Your task to perform on an android device: remove spam from my inbox in the gmail app Image 0: 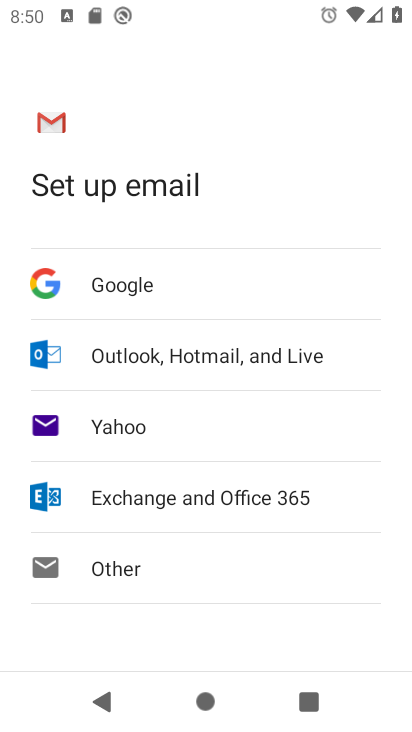
Step 0: press home button
Your task to perform on an android device: remove spam from my inbox in the gmail app Image 1: 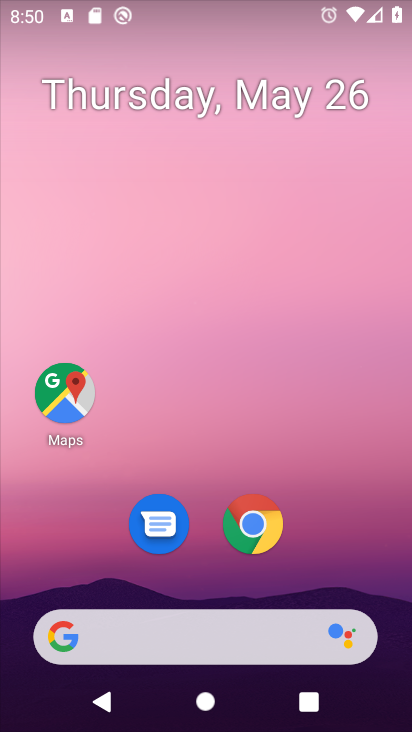
Step 1: drag from (188, 542) to (162, 80)
Your task to perform on an android device: remove spam from my inbox in the gmail app Image 2: 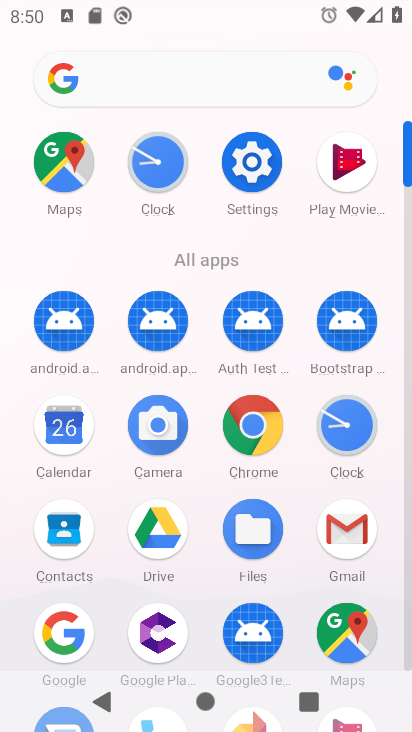
Step 2: click (344, 532)
Your task to perform on an android device: remove spam from my inbox in the gmail app Image 3: 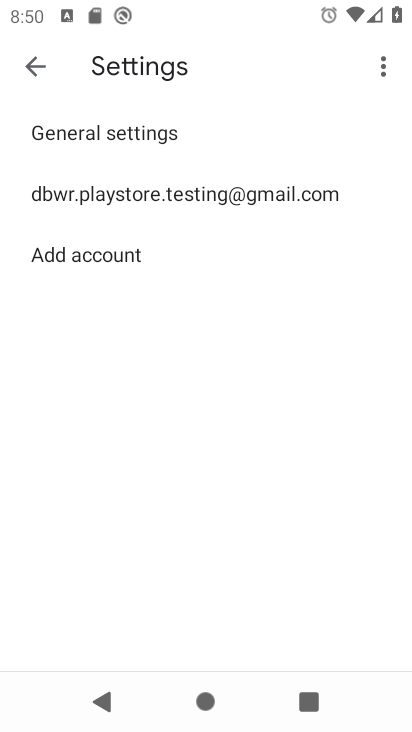
Step 3: click (32, 52)
Your task to perform on an android device: remove spam from my inbox in the gmail app Image 4: 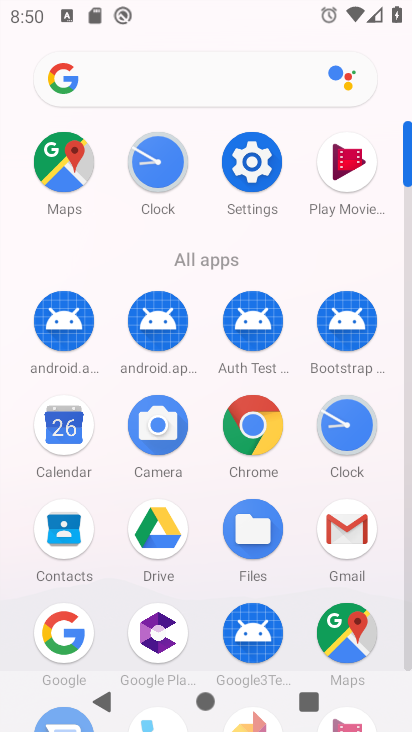
Step 4: click (346, 530)
Your task to perform on an android device: remove spam from my inbox in the gmail app Image 5: 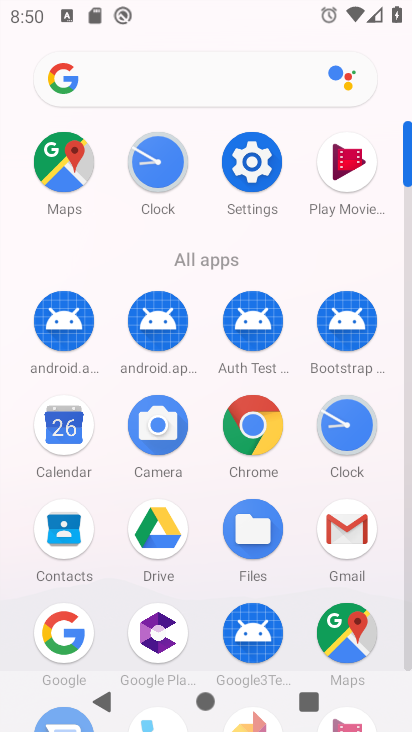
Step 5: click (344, 512)
Your task to perform on an android device: remove spam from my inbox in the gmail app Image 6: 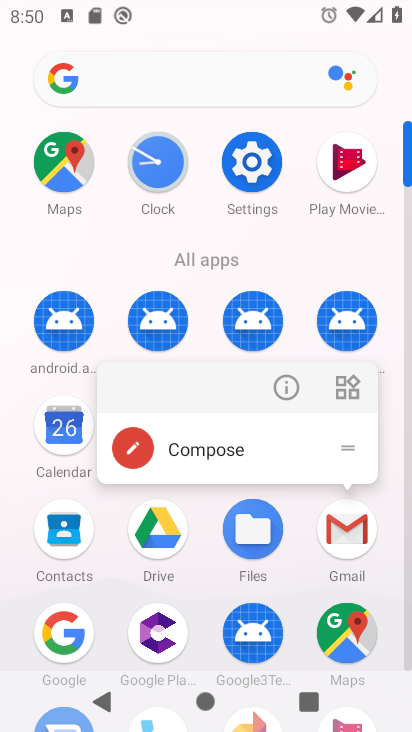
Step 6: click (344, 522)
Your task to perform on an android device: remove spam from my inbox in the gmail app Image 7: 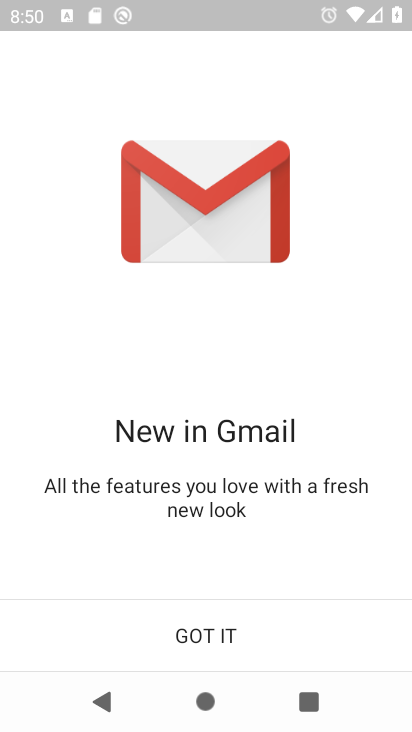
Step 7: click (260, 622)
Your task to perform on an android device: remove spam from my inbox in the gmail app Image 8: 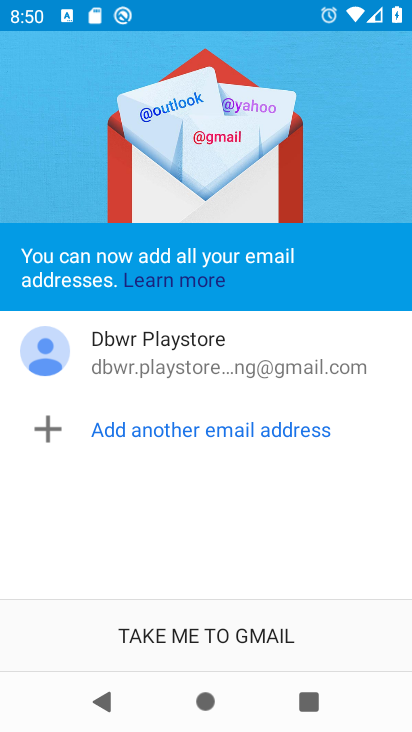
Step 8: click (260, 620)
Your task to perform on an android device: remove spam from my inbox in the gmail app Image 9: 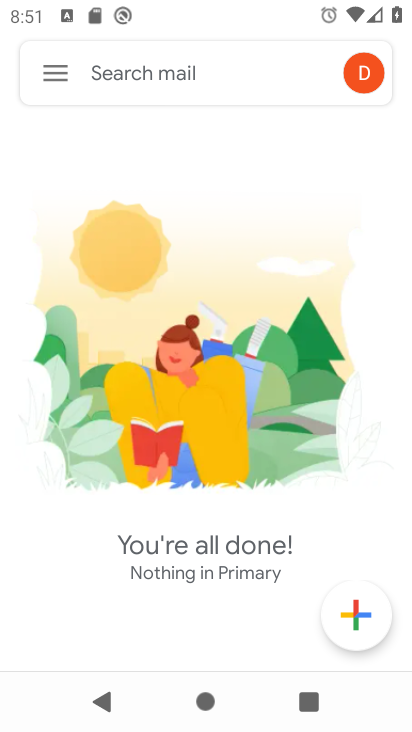
Step 9: click (54, 71)
Your task to perform on an android device: remove spam from my inbox in the gmail app Image 10: 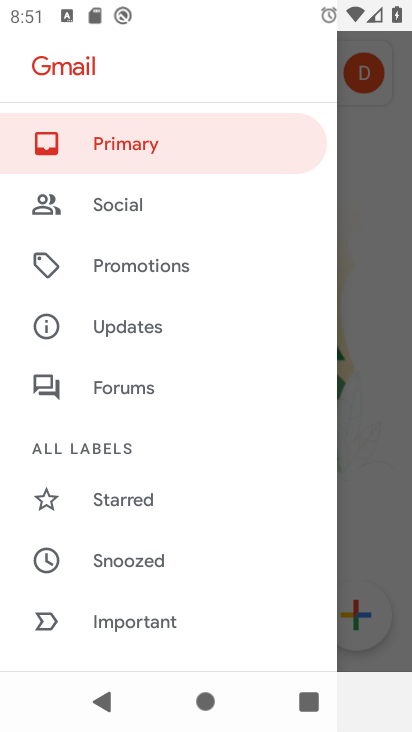
Step 10: drag from (188, 505) to (193, 230)
Your task to perform on an android device: remove spam from my inbox in the gmail app Image 11: 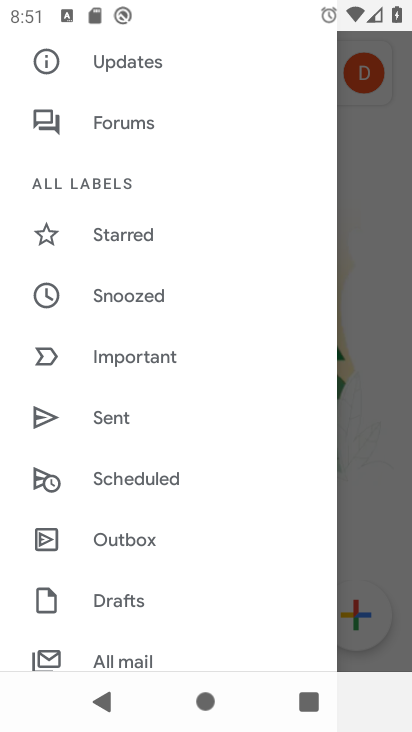
Step 11: drag from (193, 232) to (183, 148)
Your task to perform on an android device: remove spam from my inbox in the gmail app Image 12: 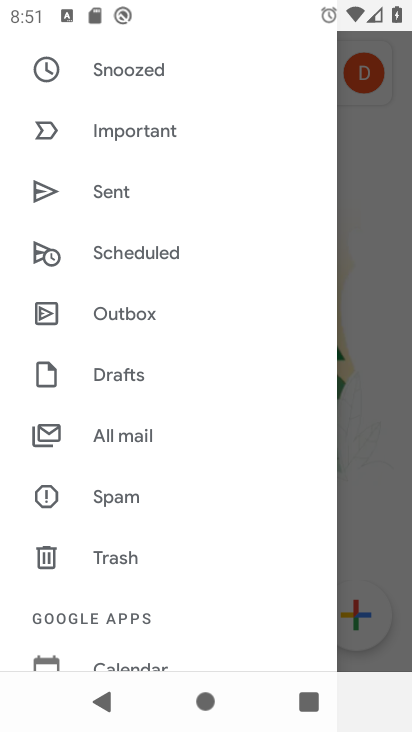
Step 12: click (140, 420)
Your task to perform on an android device: remove spam from my inbox in the gmail app Image 13: 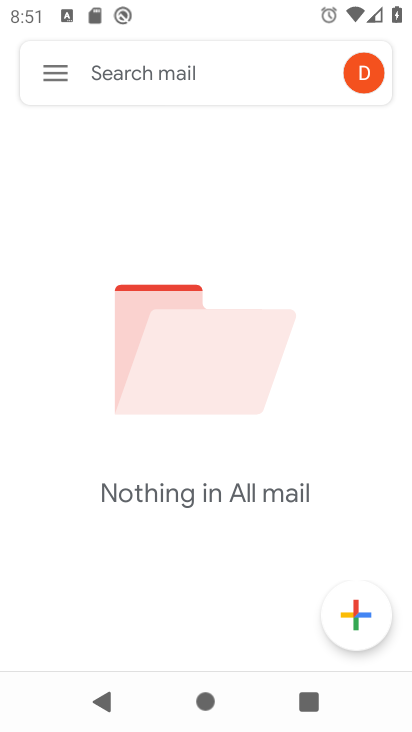
Step 13: task complete